Your task to perform on an android device: toggle javascript in the chrome app Image 0: 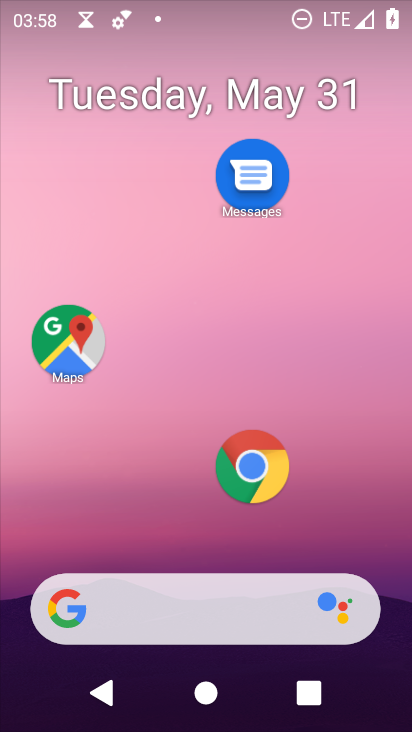
Step 0: click (257, 465)
Your task to perform on an android device: toggle javascript in the chrome app Image 1: 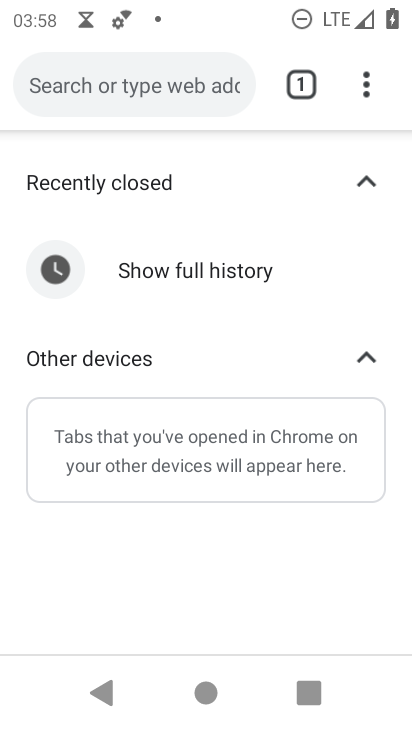
Step 1: drag from (359, 81) to (68, 503)
Your task to perform on an android device: toggle javascript in the chrome app Image 2: 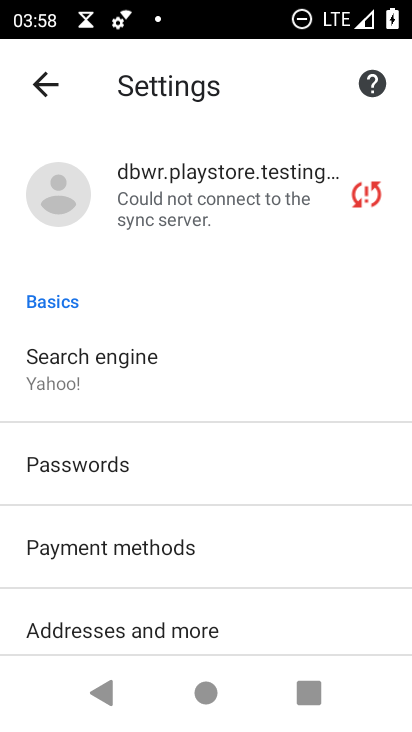
Step 2: drag from (192, 520) to (286, 134)
Your task to perform on an android device: toggle javascript in the chrome app Image 3: 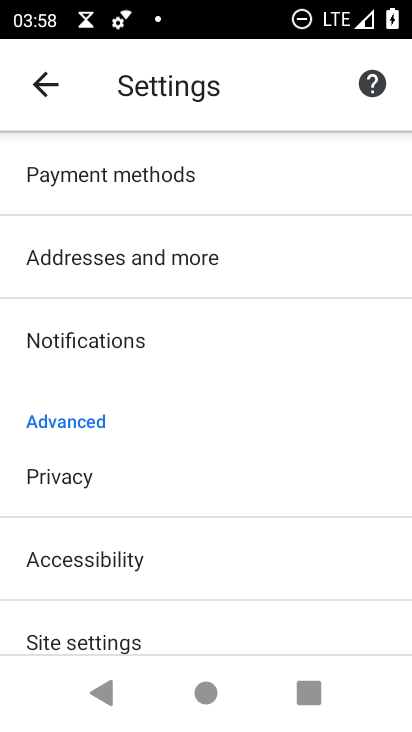
Step 3: click (122, 638)
Your task to perform on an android device: toggle javascript in the chrome app Image 4: 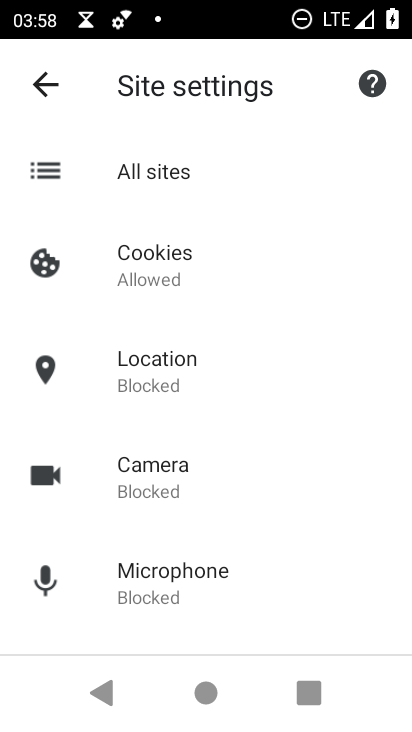
Step 4: drag from (183, 561) to (304, 70)
Your task to perform on an android device: toggle javascript in the chrome app Image 5: 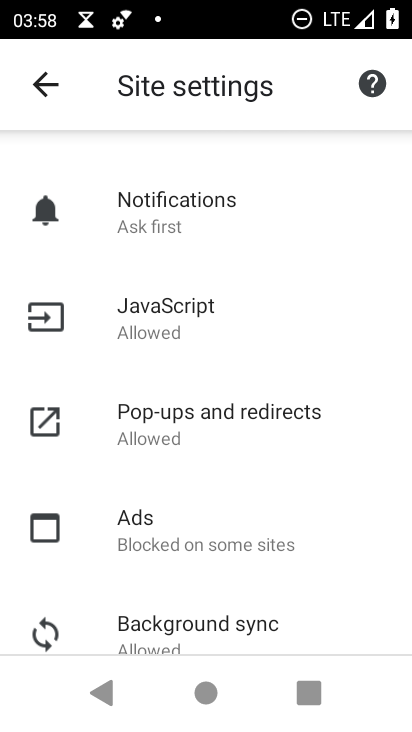
Step 5: click (158, 319)
Your task to perform on an android device: toggle javascript in the chrome app Image 6: 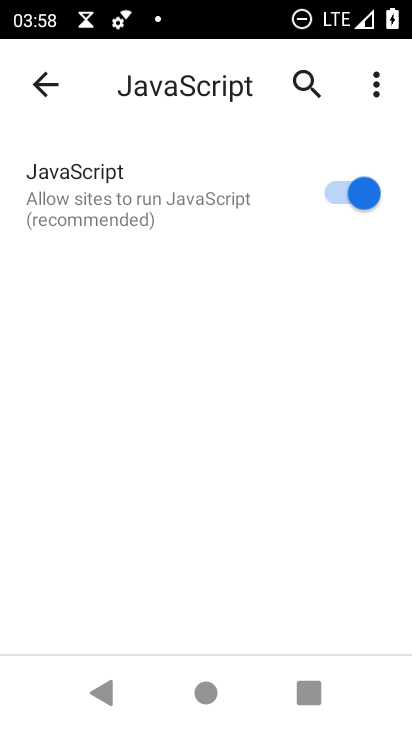
Step 6: click (351, 196)
Your task to perform on an android device: toggle javascript in the chrome app Image 7: 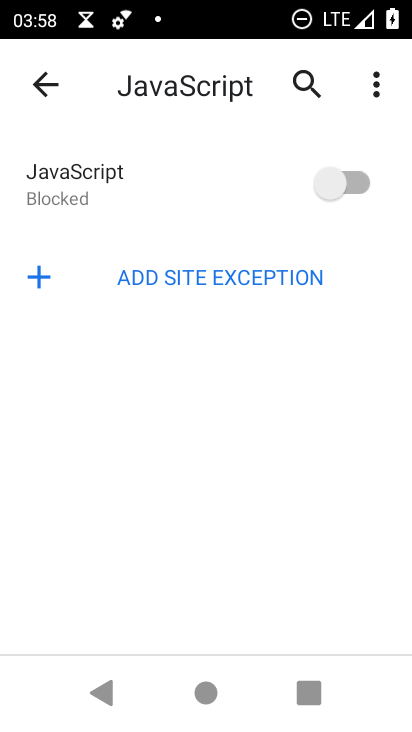
Step 7: task complete